Your task to perform on an android device: open sync settings in chrome Image 0: 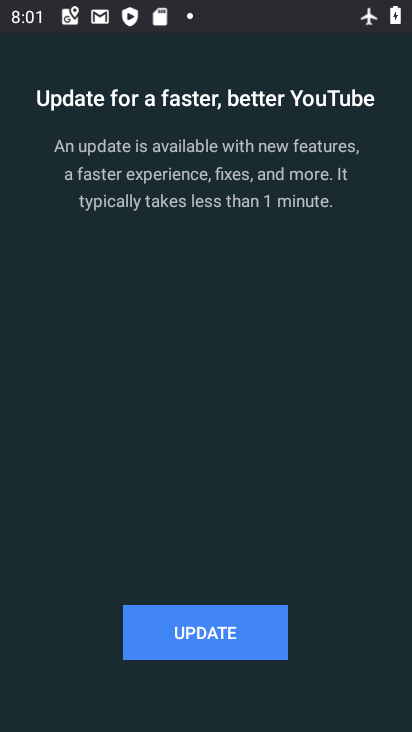
Step 0: press home button
Your task to perform on an android device: open sync settings in chrome Image 1: 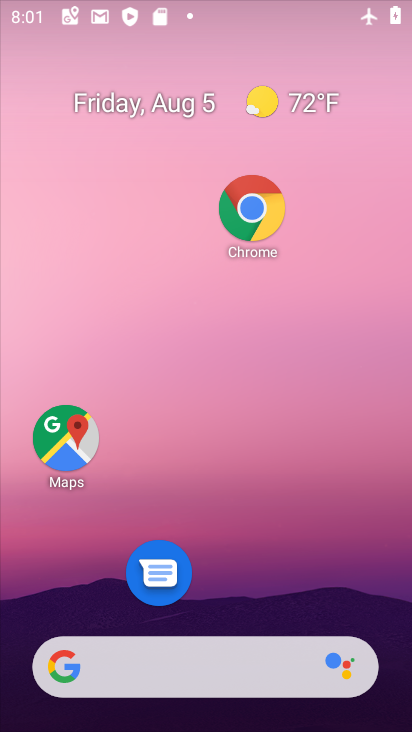
Step 1: drag from (248, 703) to (191, 71)
Your task to perform on an android device: open sync settings in chrome Image 2: 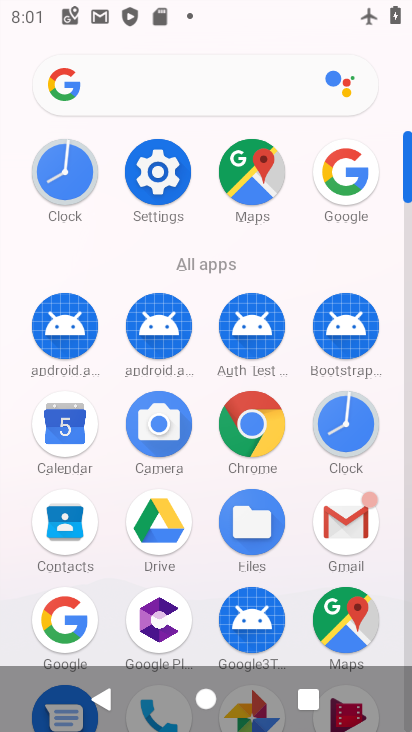
Step 2: click (249, 444)
Your task to perform on an android device: open sync settings in chrome Image 3: 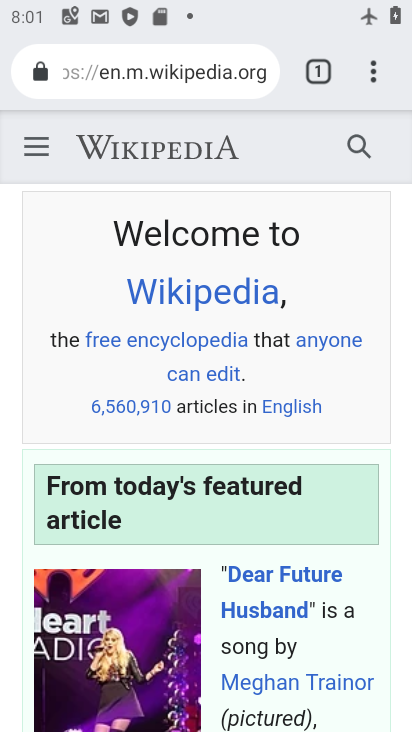
Step 3: drag from (383, 67) to (150, 563)
Your task to perform on an android device: open sync settings in chrome Image 4: 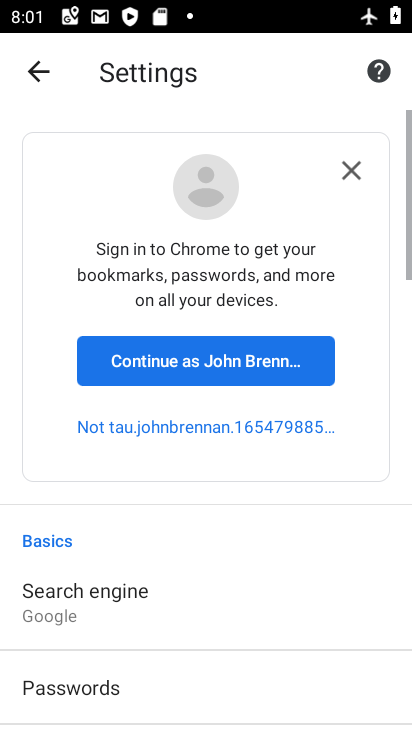
Step 4: drag from (165, 658) to (145, 205)
Your task to perform on an android device: open sync settings in chrome Image 5: 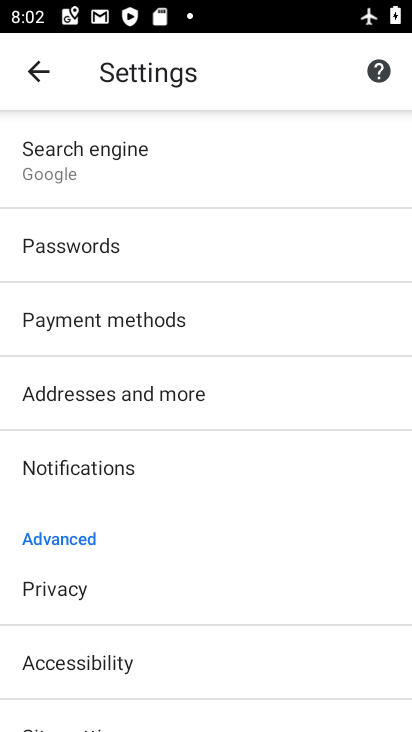
Step 5: drag from (130, 625) to (142, 131)
Your task to perform on an android device: open sync settings in chrome Image 6: 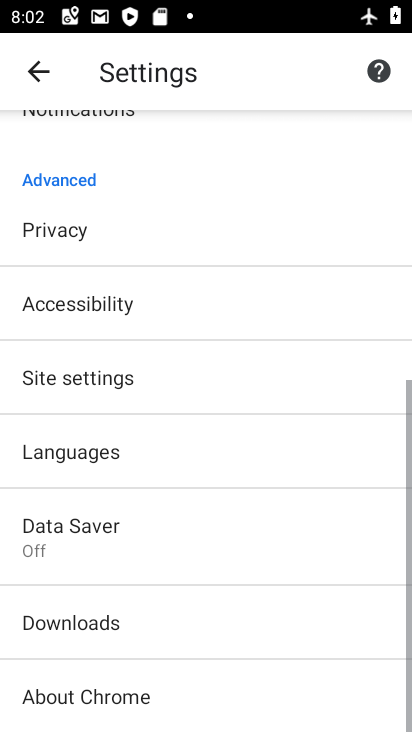
Step 6: click (81, 370)
Your task to perform on an android device: open sync settings in chrome Image 7: 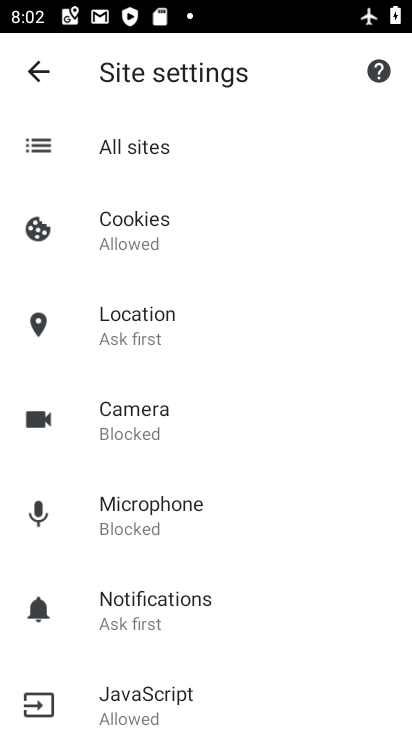
Step 7: drag from (206, 633) to (272, 133)
Your task to perform on an android device: open sync settings in chrome Image 8: 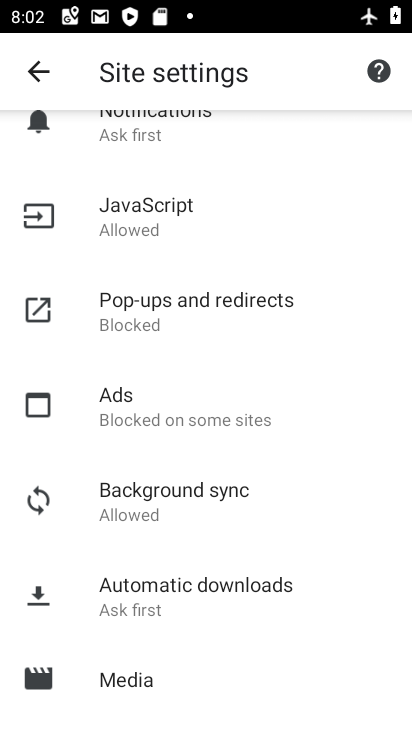
Step 8: click (184, 514)
Your task to perform on an android device: open sync settings in chrome Image 9: 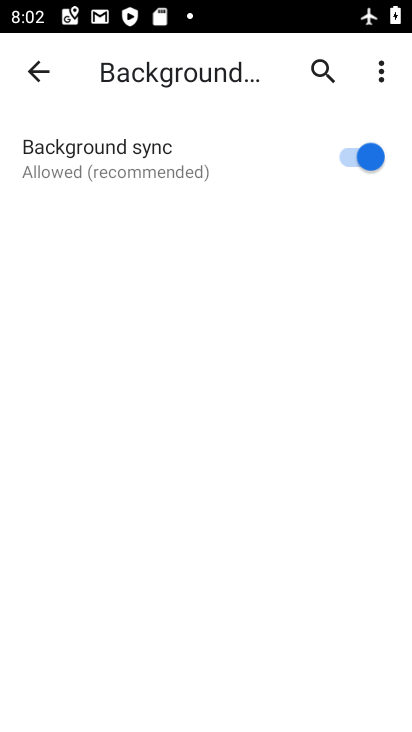
Step 9: task complete